Your task to perform on an android device: Open Maps and search for coffee Image 0: 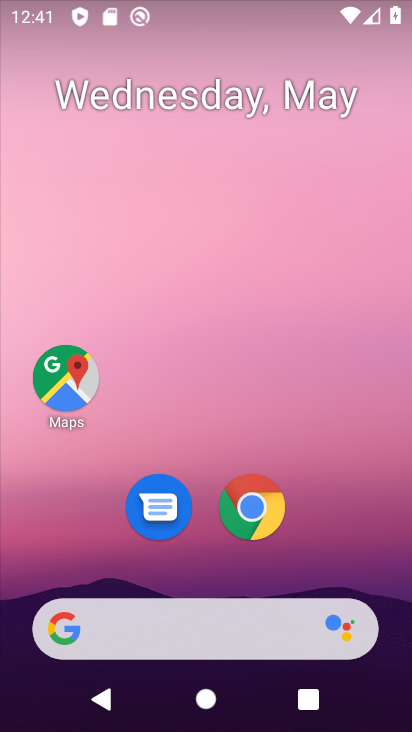
Step 0: click (61, 379)
Your task to perform on an android device: Open Maps and search for coffee Image 1: 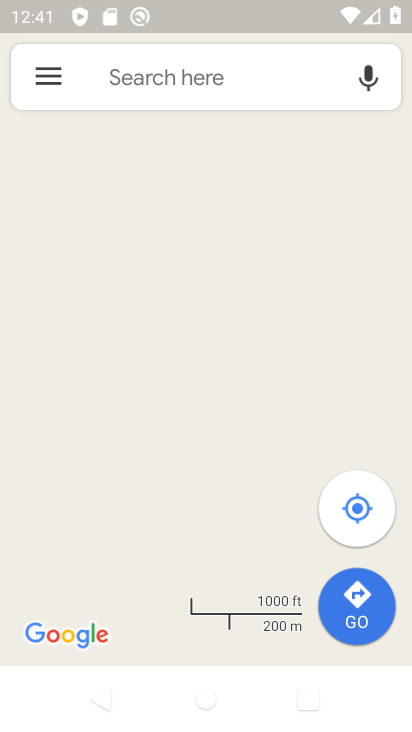
Step 1: click (157, 83)
Your task to perform on an android device: Open Maps and search for coffee Image 2: 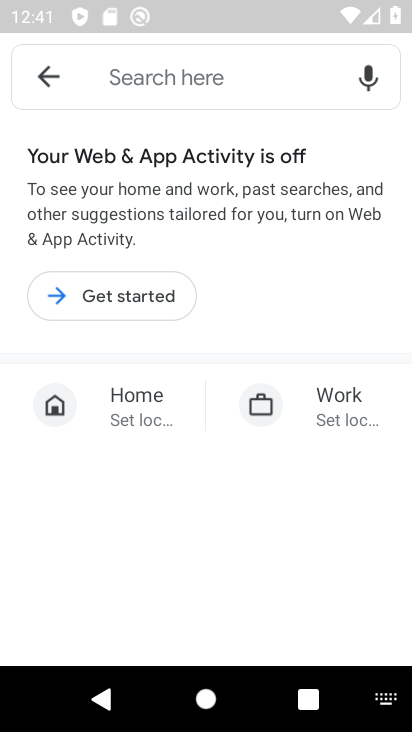
Step 2: type "coffee"
Your task to perform on an android device: Open Maps and search for coffee Image 3: 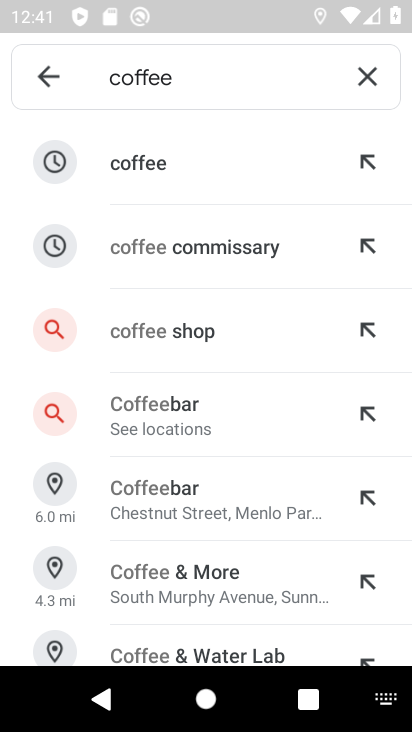
Step 3: click (147, 164)
Your task to perform on an android device: Open Maps and search for coffee Image 4: 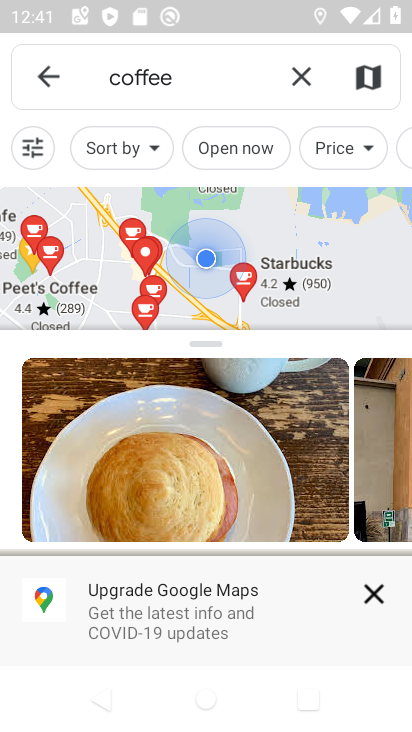
Step 4: task complete